Your task to perform on an android device: change the clock display to show seconds Image 0: 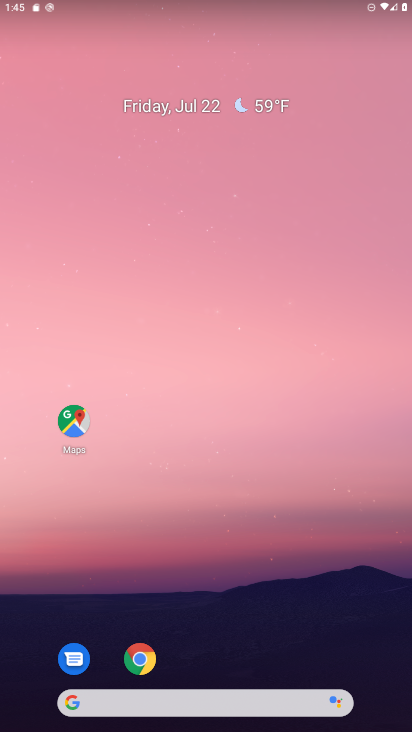
Step 0: drag from (268, 600) to (387, 117)
Your task to perform on an android device: change the clock display to show seconds Image 1: 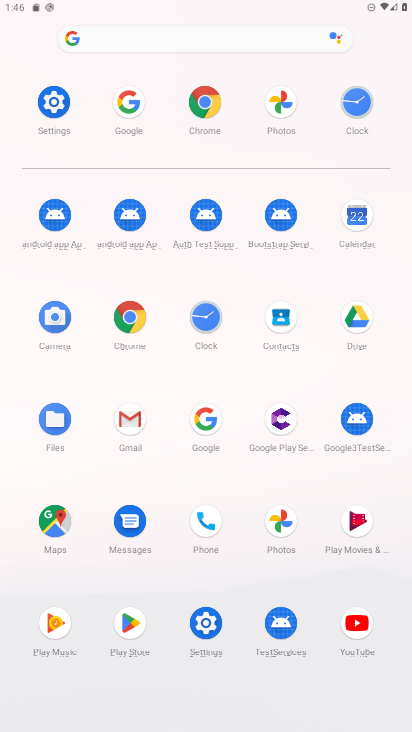
Step 1: click (353, 104)
Your task to perform on an android device: change the clock display to show seconds Image 2: 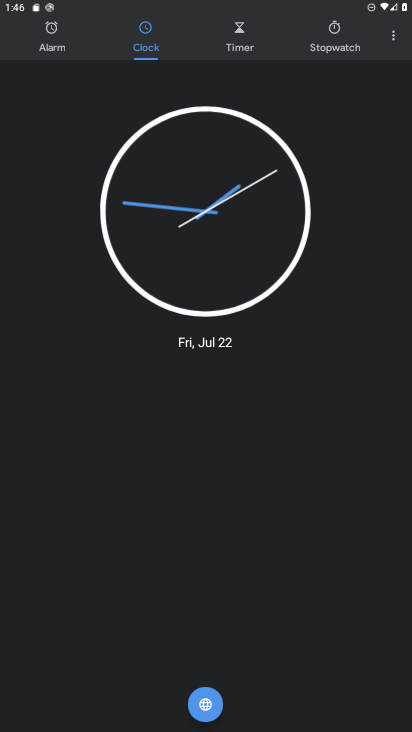
Step 2: click (393, 30)
Your task to perform on an android device: change the clock display to show seconds Image 3: 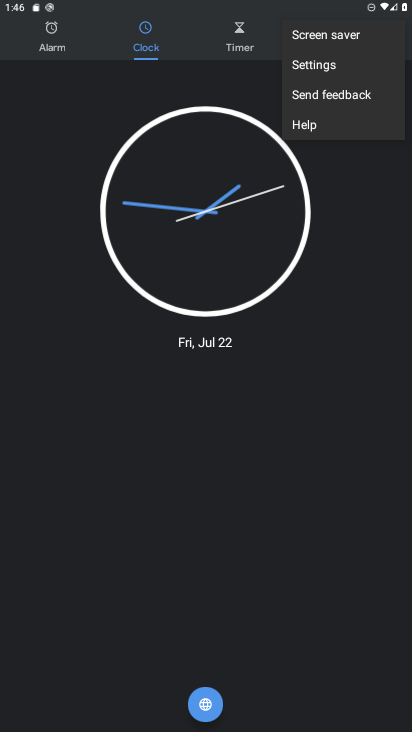
Step 3: click (331, 78)
Your task to perform on an android device: change the clock display to show seconds Image 4: 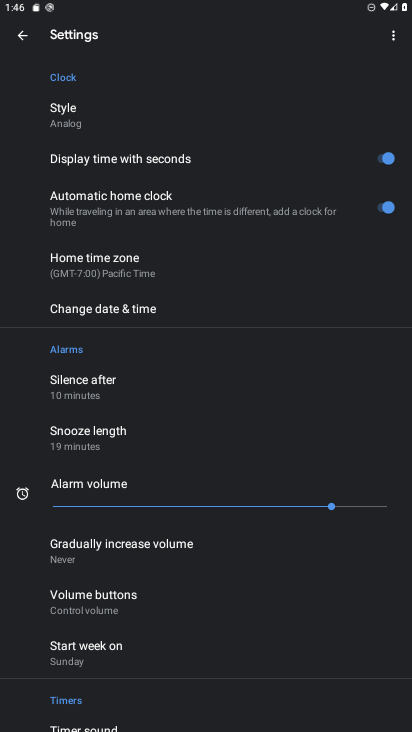
Step 4: click (397, 160)
Your task to perform on an android device: change the clock display to show seconds Image 5: 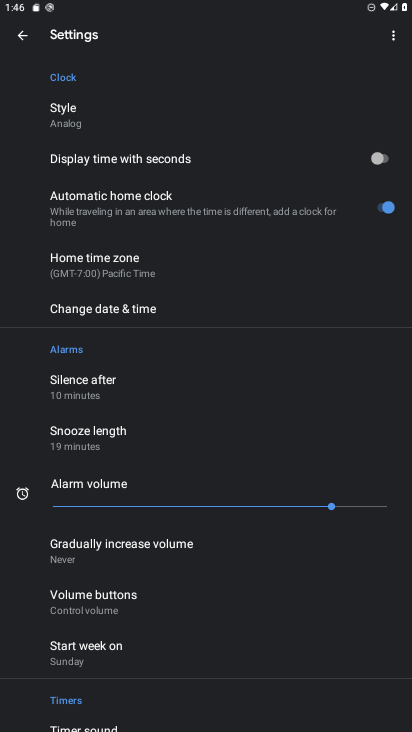
Step 5: click (370, 166)
Your task to perform on an android device: change the clock display to show seconds Image 6: 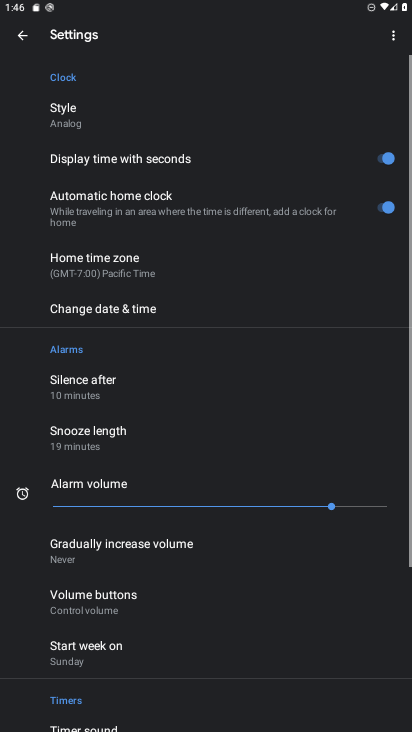
Step 6: task complete